Your task to perform on an android device: Open internet settings Image 0: 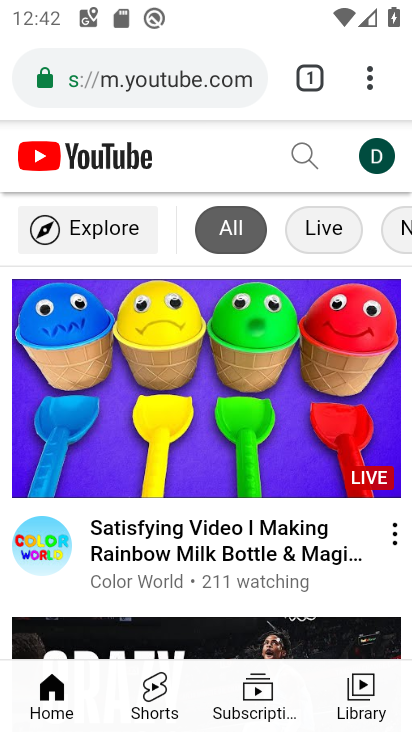
Step 0: press home button
Your task to perform on an android device: Open internet settings Image 1: 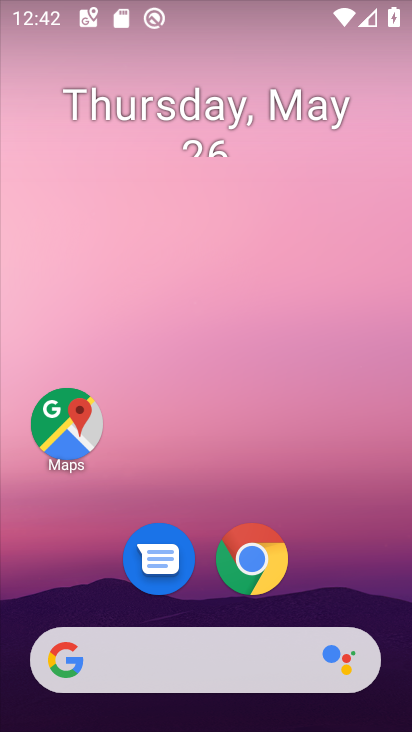
Step 1: drag from (309, 601) to (317, 192)
Your task to perform on an android device: Open internet settings Image 2: 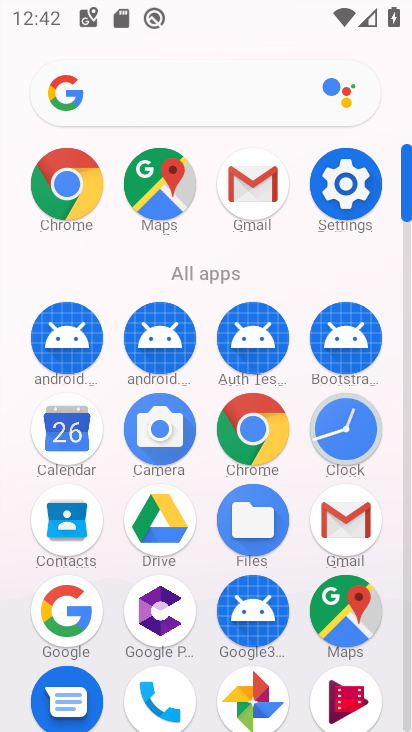
Step 2: click (351, 193)
Your task to perform on an android device: Open internet settings Image 3: 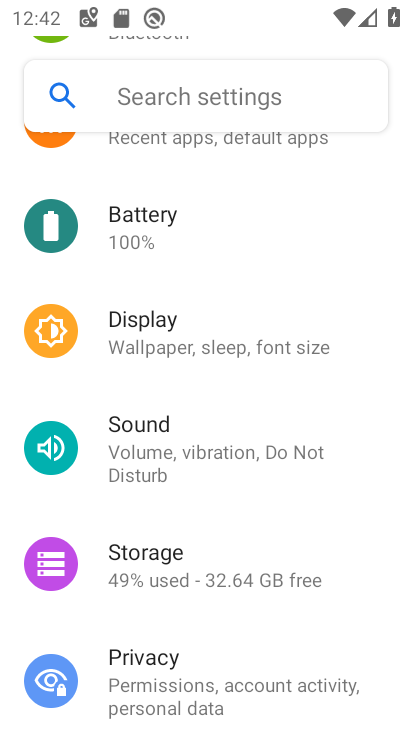
Step 3: drag from (254, 224) to (192, 728)
Your task to perform on an android device: Open internet settings Image 4: 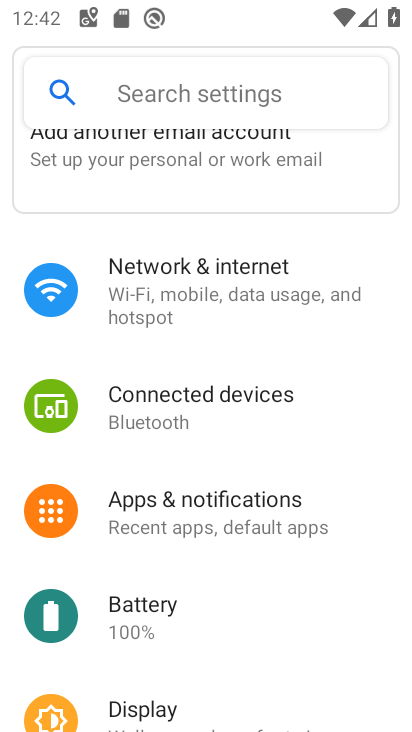
Step 4: click (216, 286)
Your task to perform on an android device: Open internet settings Image 5: 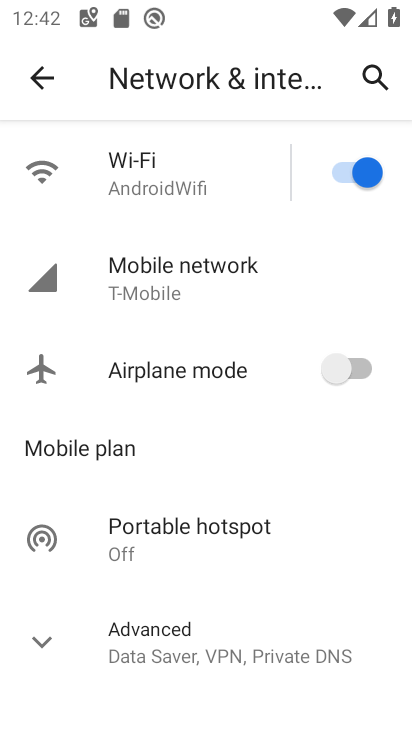
Step 5: task complete